Your task to perform on an android device: Search for a new grill on Home Depot Image 0: 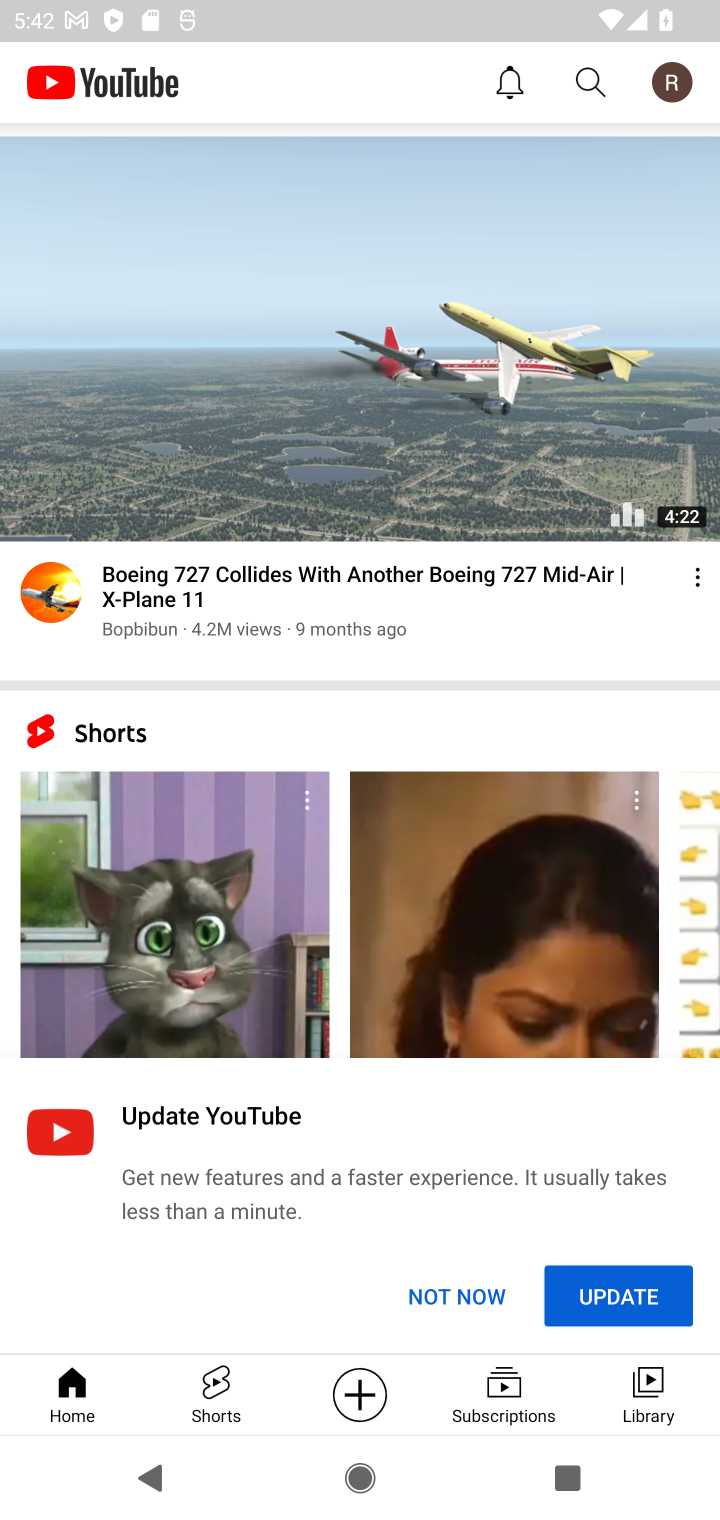
Step 0: press home button
Your task to perform on an android device: Search for a new grill on Home Depot Image 1: 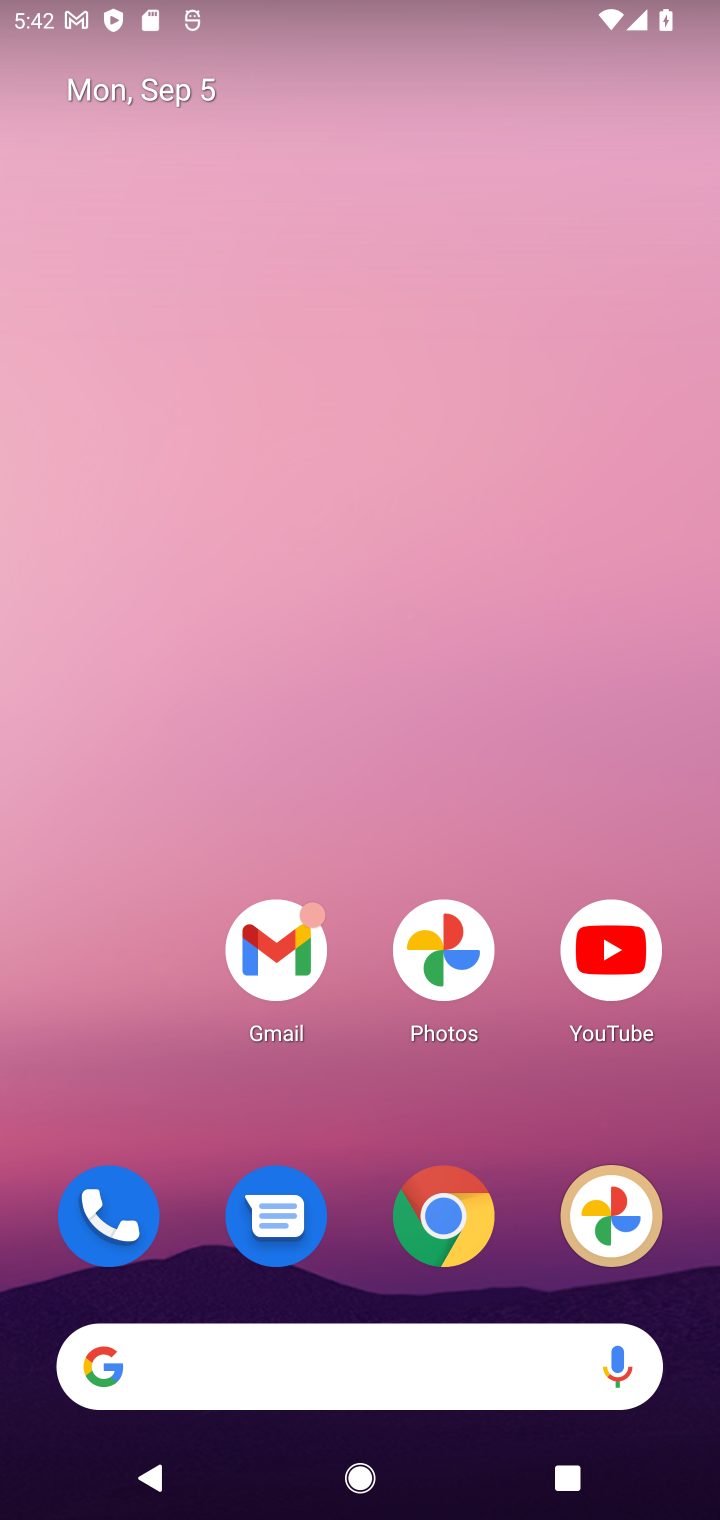
Step 1: click (450, 1229)
Your task to perform on an android device: Search for a new grill on Home Depot Image 2: 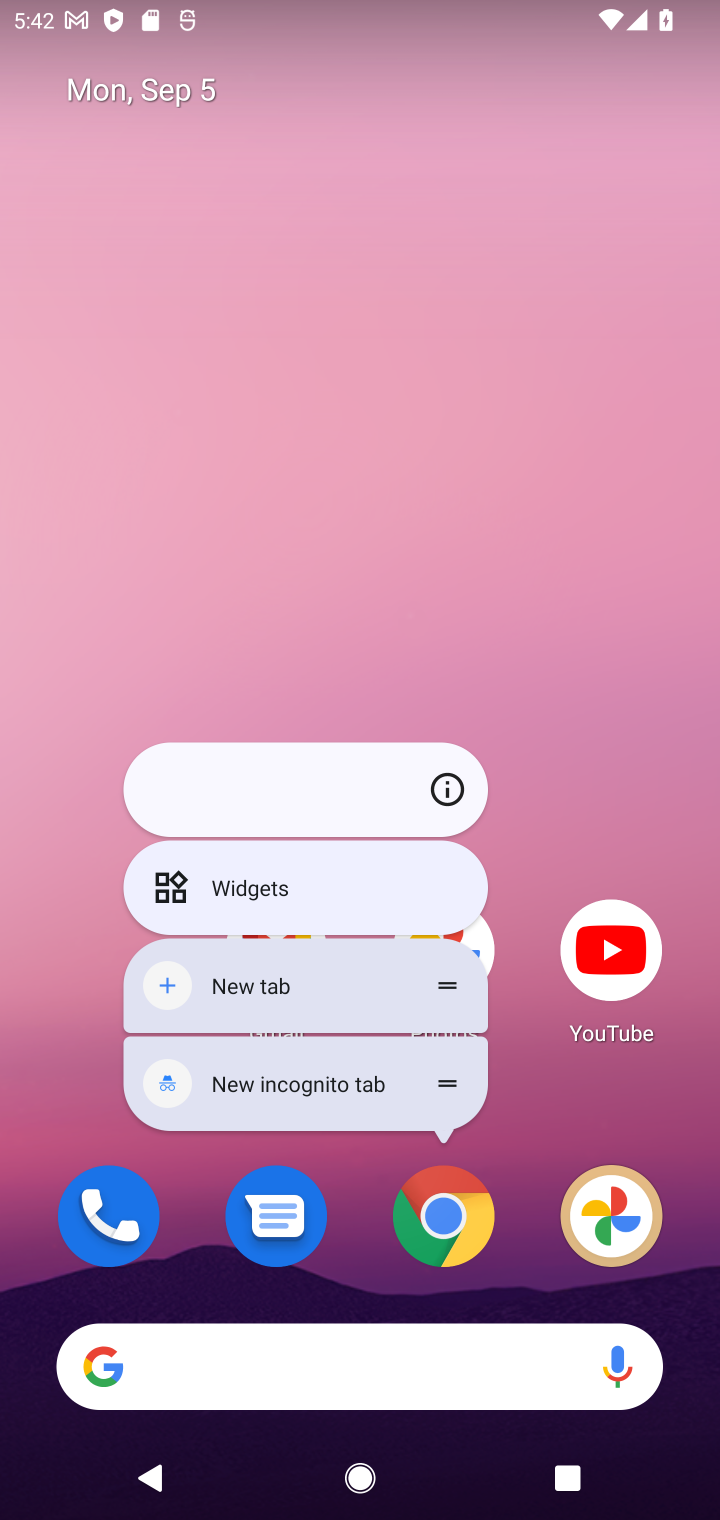
Step 2: click (458, 1202)
Your task to perform on an android device: Search for a new grill on Home Depot Image 3: 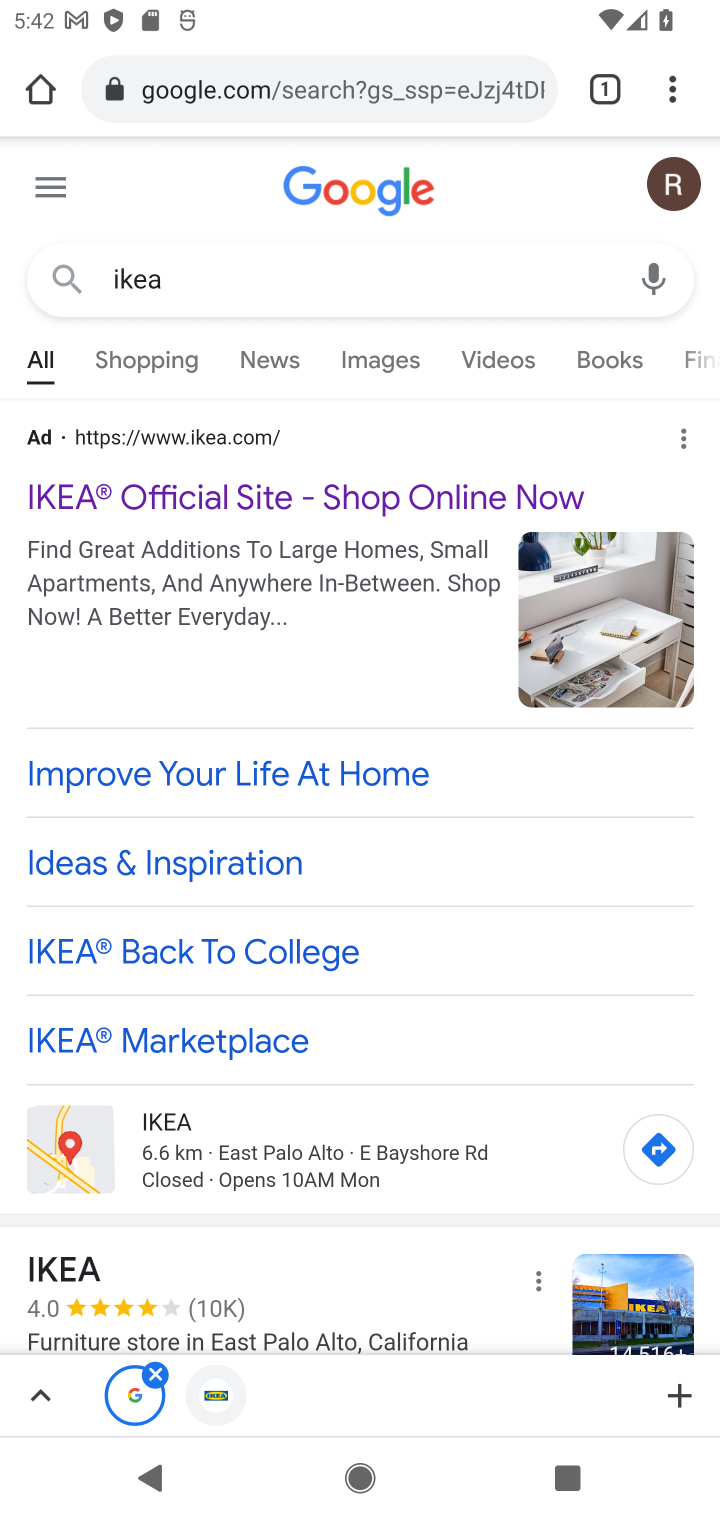
Step 3: click (150, 1381)
Your task to perform on an android device: Search for a new grill on Home Depot Image 4: 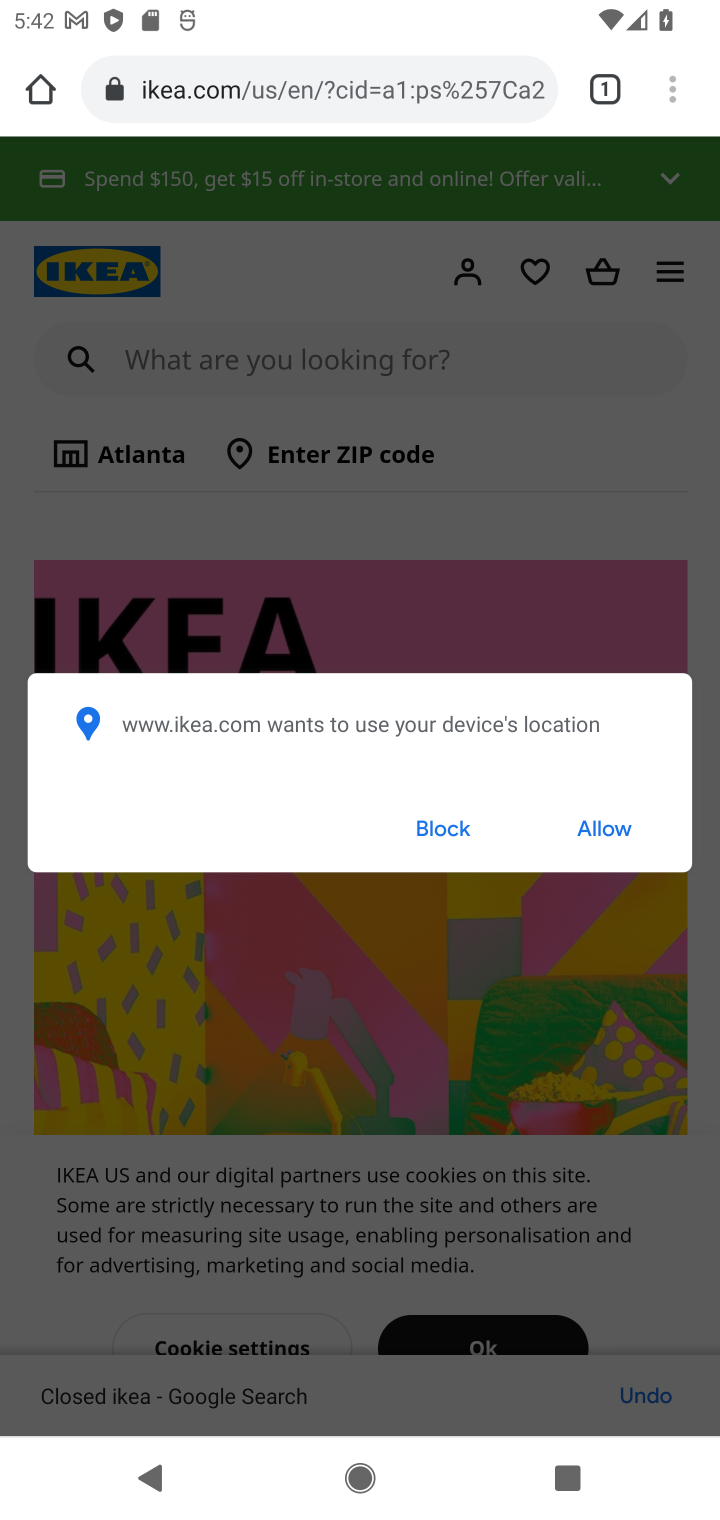
Step 4: click (458, 820)
Your task to perform on an android device: Search for a new grill on Home Depot Image 5: 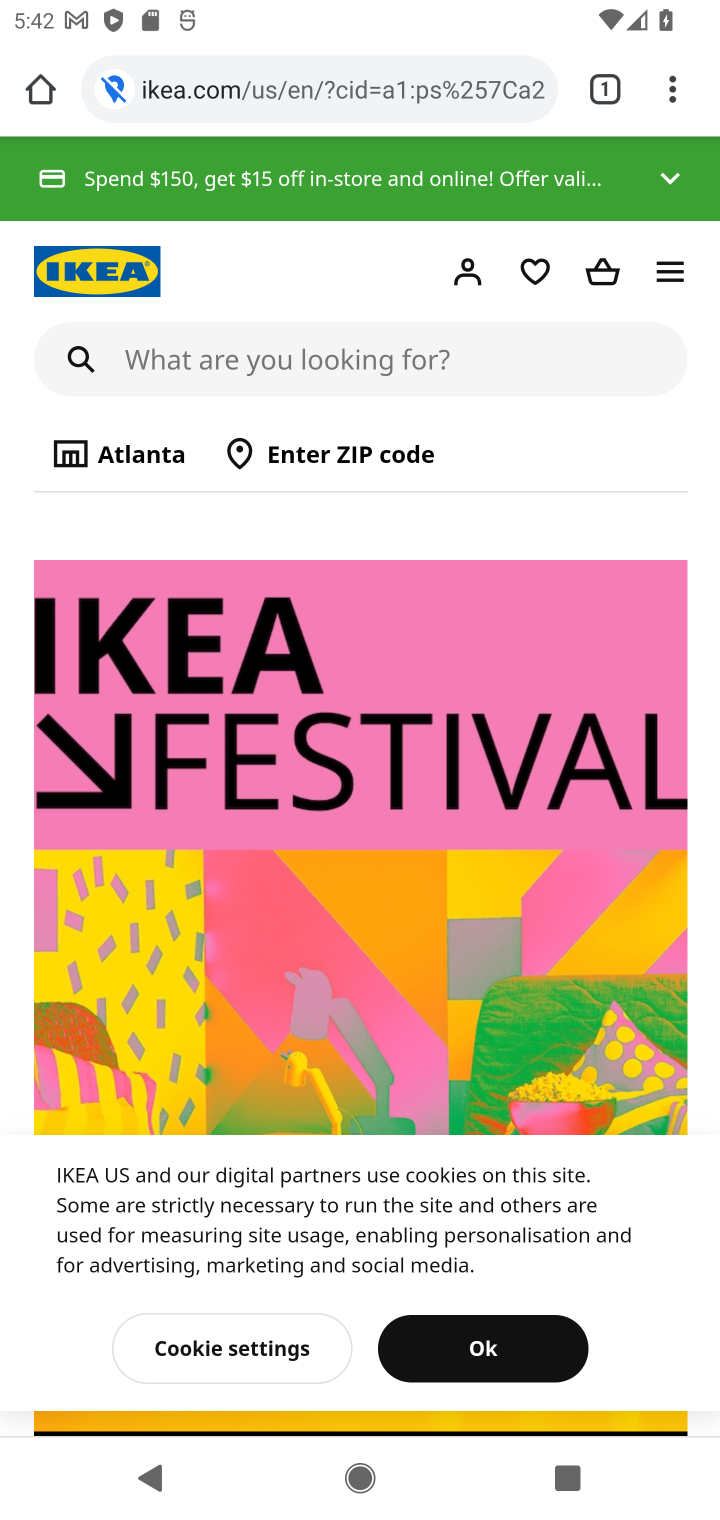
Step 5: click (380, 94)
Your task to perform on an android device: Search for a new grill on Home Depot Image 6: 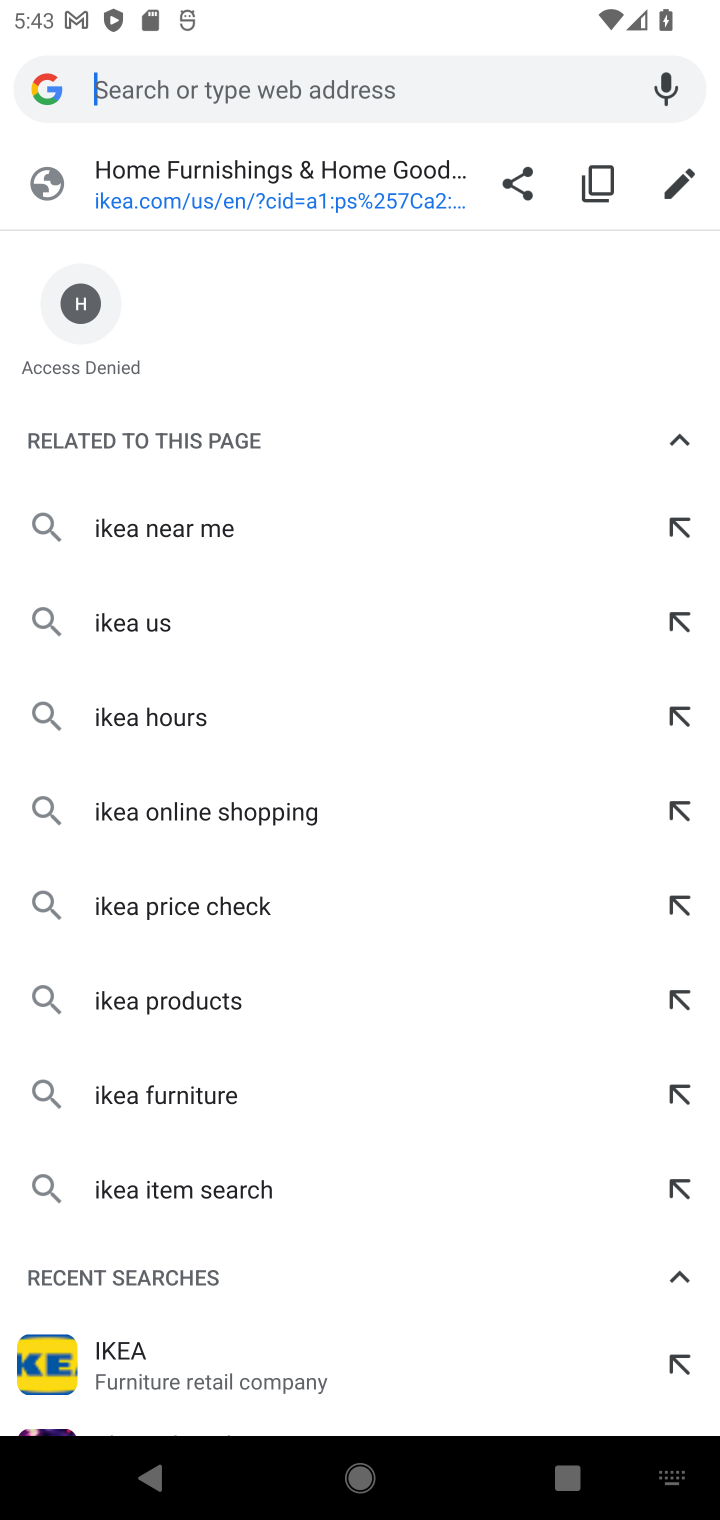
Step 6: type "homedepot"
Your task to perform on an android device: Search for a new grill on Home Depot Image 7: 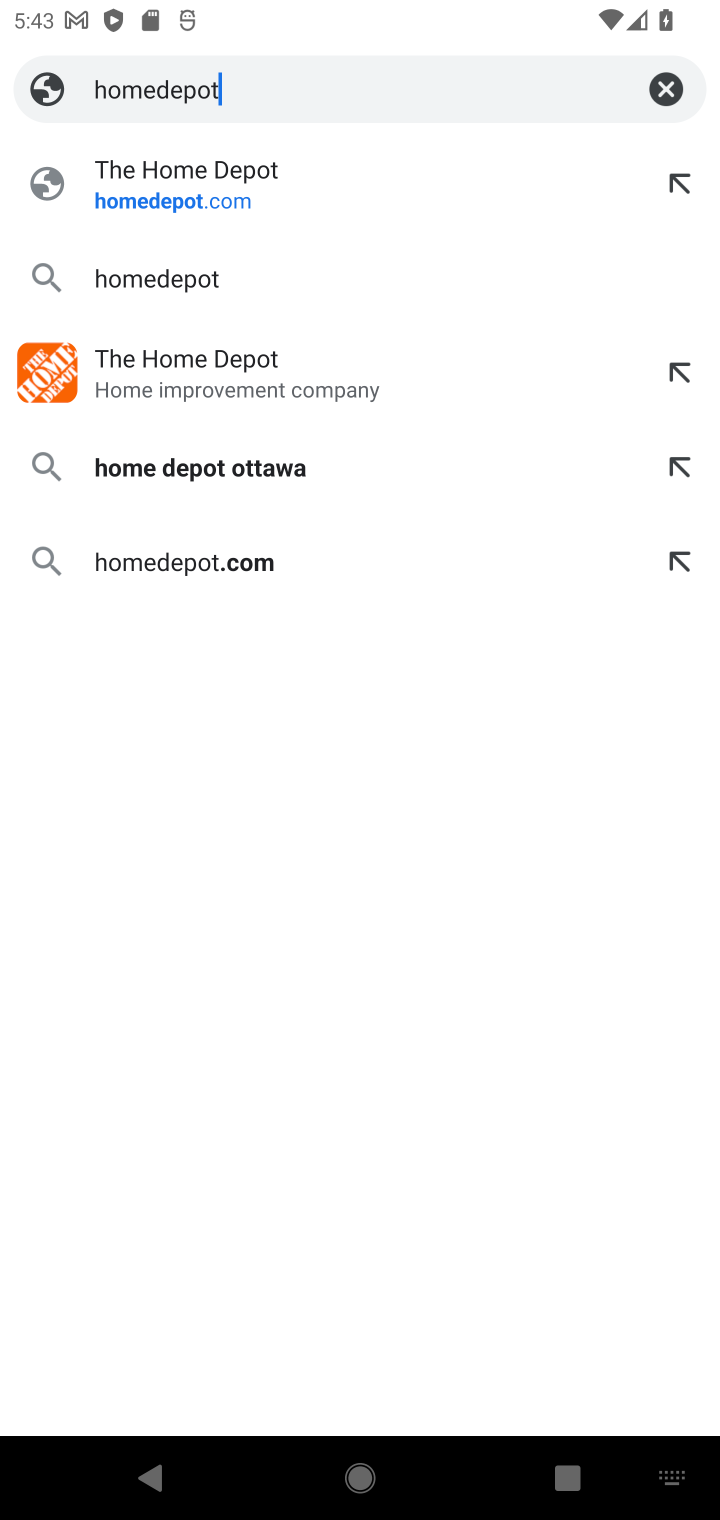
Step 7: click (223, 186)
Your task to perform on an android device: Search for a new grill on Home Depot Image 8: 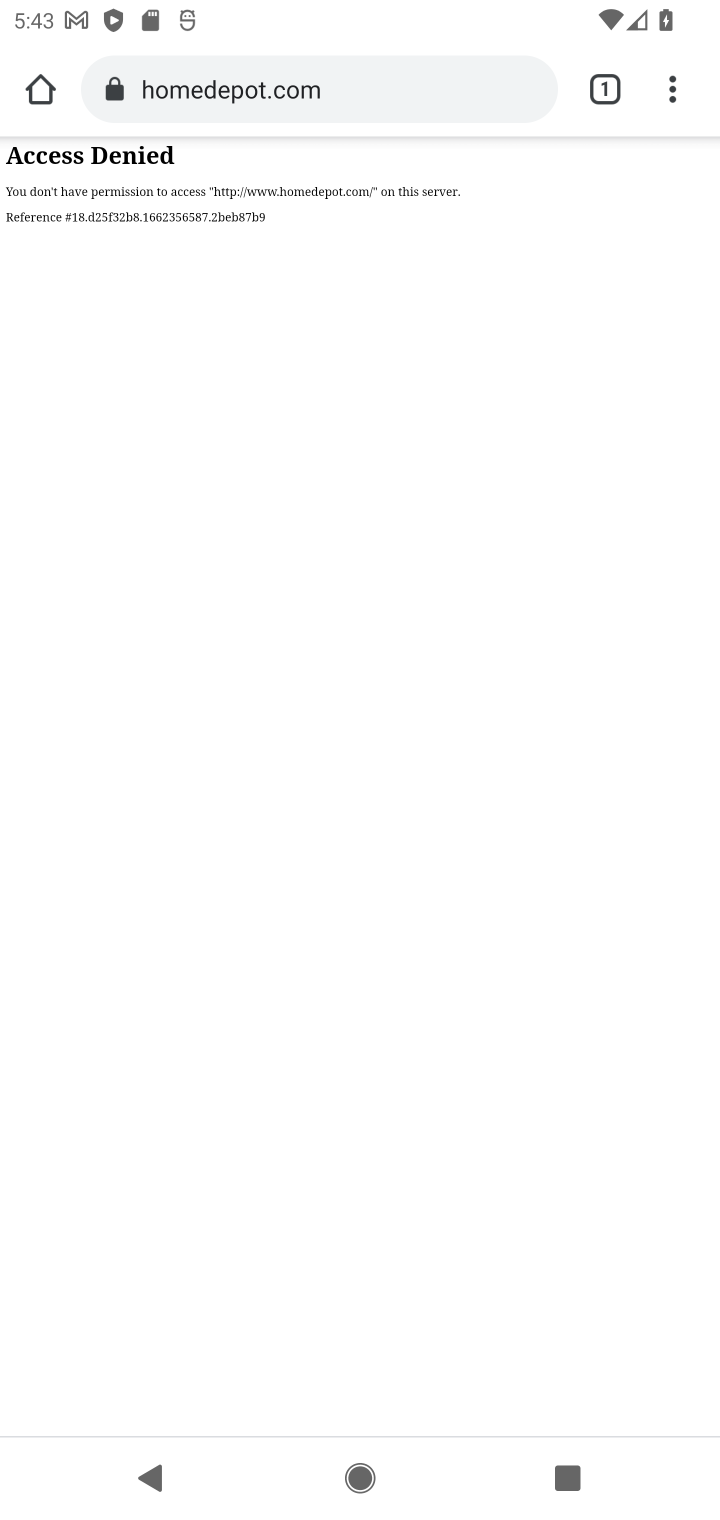
Step 8: task complete